Your task to perform on an android device: toggle pop-ups in chrome Image 0: 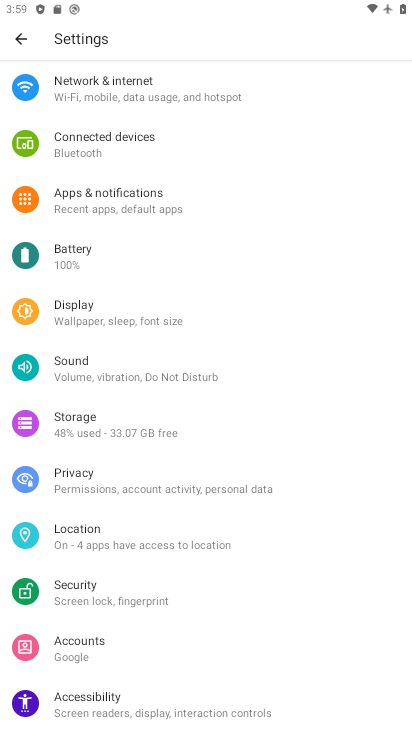
Step 0: press back button
Your task to perform on an android device: toggle pop-ups in chrome Image 1: 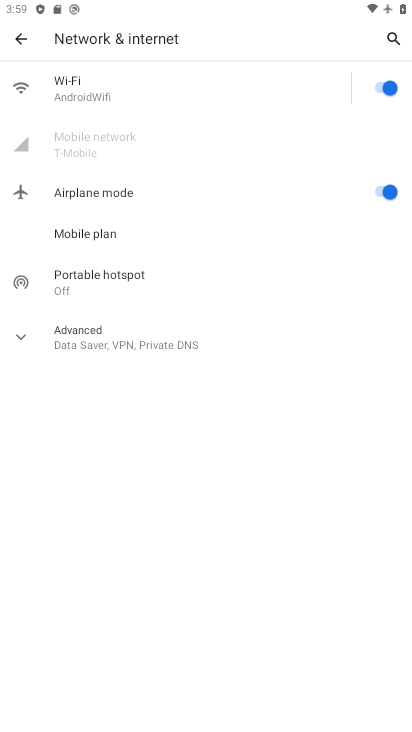
Step 1: press back button
Your task to perform on an android device: toggle pop-ups in chrome Image 2: 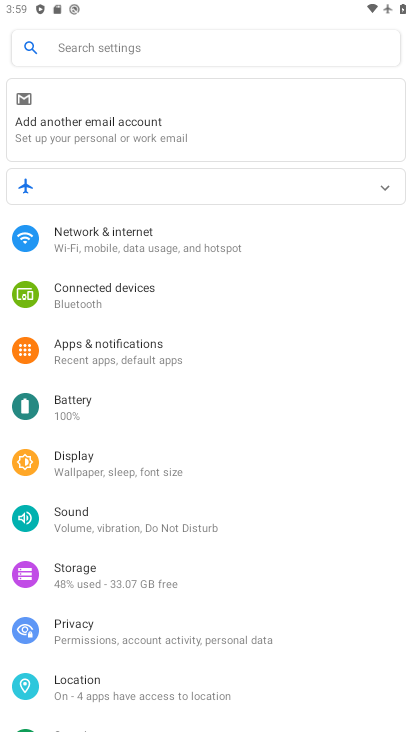
Step 2: press home button
Your task to perform on an android device: toggle pop-ups in chrome Image 3: 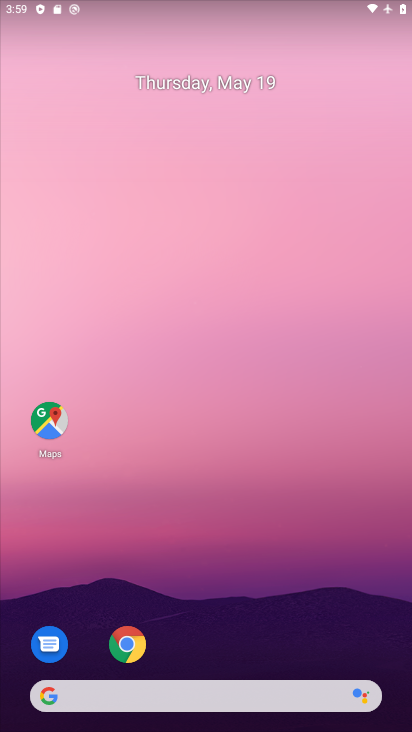
Step 3: drag from (284, 581) to (163, 0)
Your task to perform on an android device: toggle pop-ups in chrome Image 4: 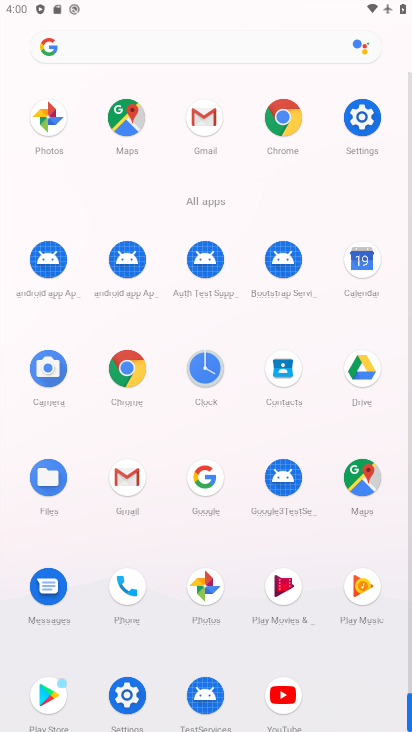
Step 4: drag from (13, 534) to (6, 225)
Your task to perform on an android device: toggle pop-ups in chrome Image 5: 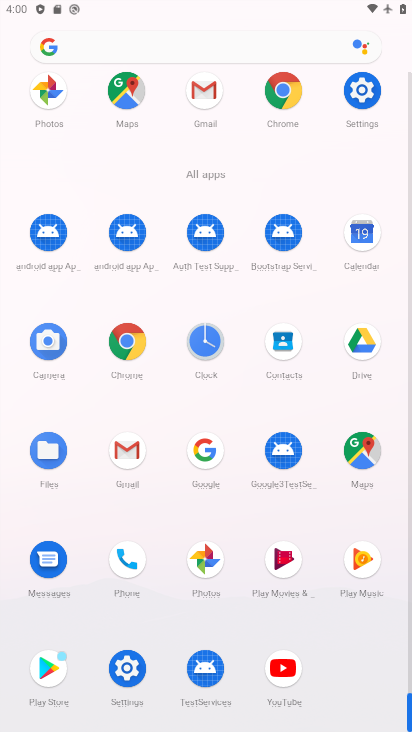
Step 5: click (124, 339)
Your task to perform on an android device: toggle pop-ups in chrome Image 6: 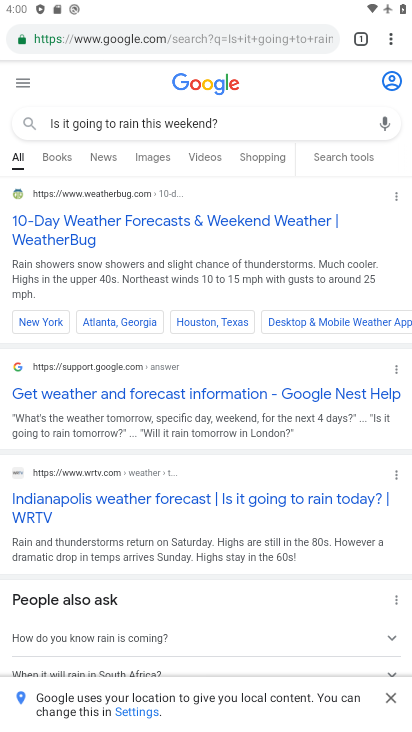
Step 6: drag from (388, 43) to (287, 440)
Your task to perform on an android device: toggle pop-ups in chrome Image 7: 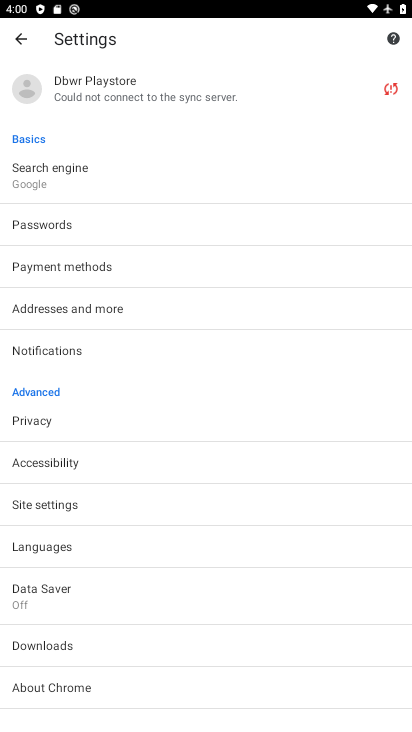
Step 7: click (69, 504)
Your task to perform on an android device: toggle pop-ups in chrome Image 8: 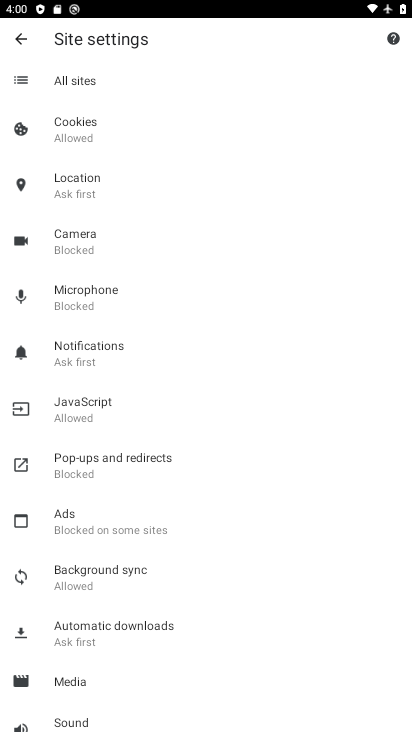
Step 8: click (96, 467)
Your task to perform on an android device: toggle pop-ups in chrome Image 9: 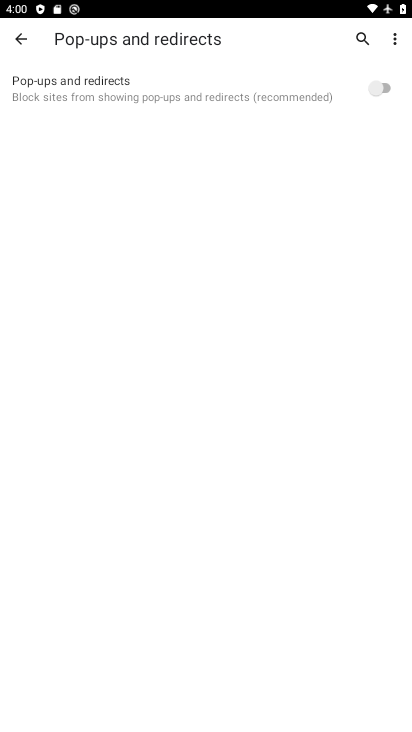
Step 9: click (383, 87)
Your task to perform on an android device: toggle pop-ups in chrome Image 10: 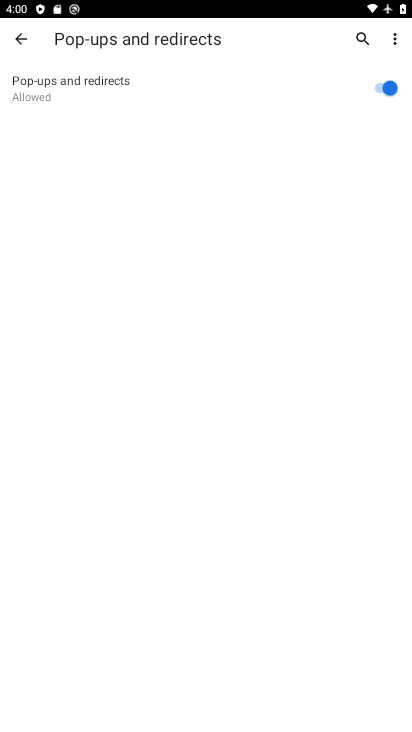
Step 10: task complete